Your task to perform on an android device: turn on showing notifications on the lock screen Image 0: 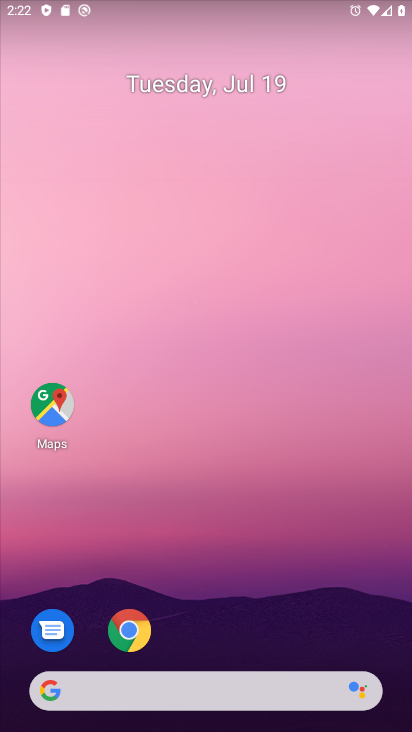
Step 0: drag from (242, 642) to (286, 46)
Your task to perform on an android device: turn on showing notifications on the lock screen Image 1: 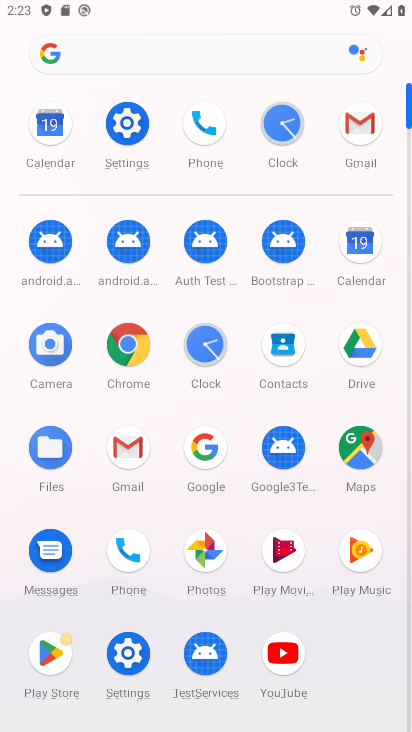
Step 1: click (132, 126)
Your task to perform on an android device: turn on showing notifications on the lock screen Image 2: 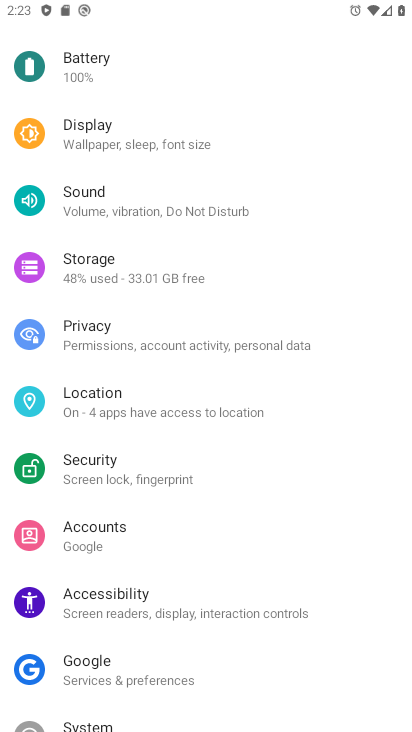
Step 2: drag from (226, 255) to (223, 590)
Your task to perform on an android device: turn on showing notifications on the lock screen Image 3: 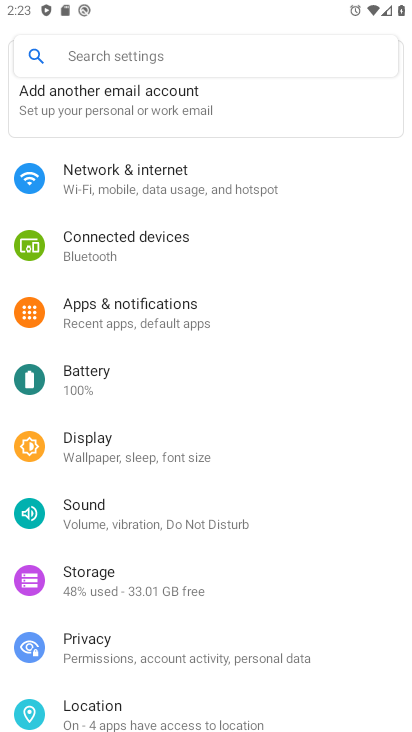
Step 3: click (179, 313)
Your task to perform on an android device: turn on showing notifications on the lock screen Image 4: 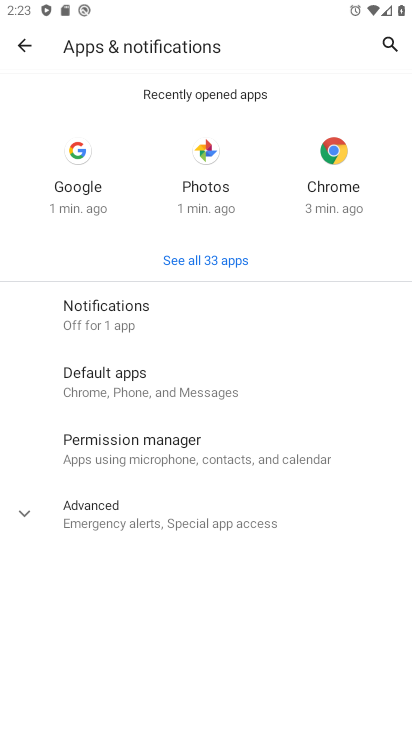
Step 4: click (24, 514)
Your task to perform on an android device: turn on showing notifications on the lock screen Image 5: 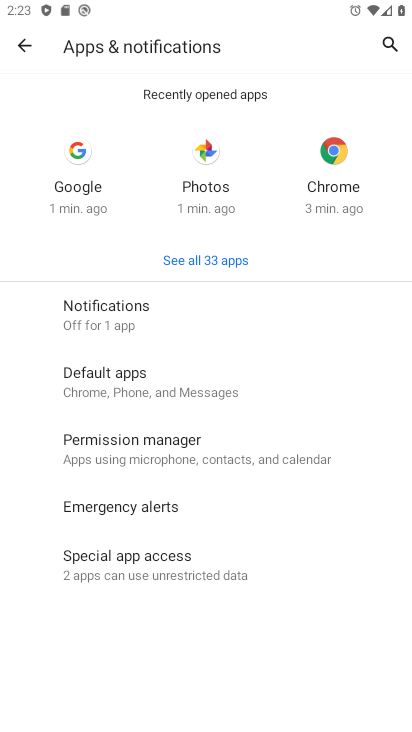
Step 5: click (184, 318)
Your task to perform on an android device: turn on showing notifications on the lock screen Image 6: 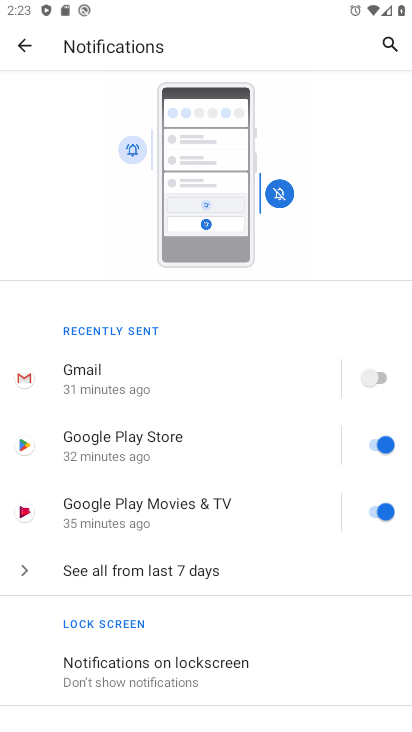
Step 6: click (221, 669)
Your task to perform on an android device: turn on showing notifications on the lock screen Image 7: 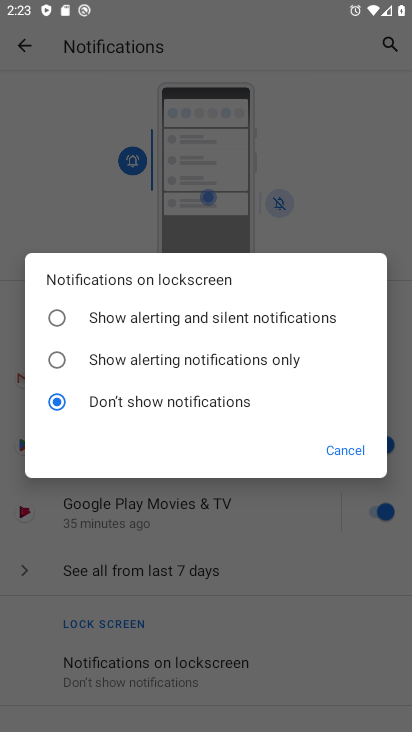
Step 7: click (55, 303)
Your task to perform on an android device: turn on showing notifications on the lock screen Image 8: 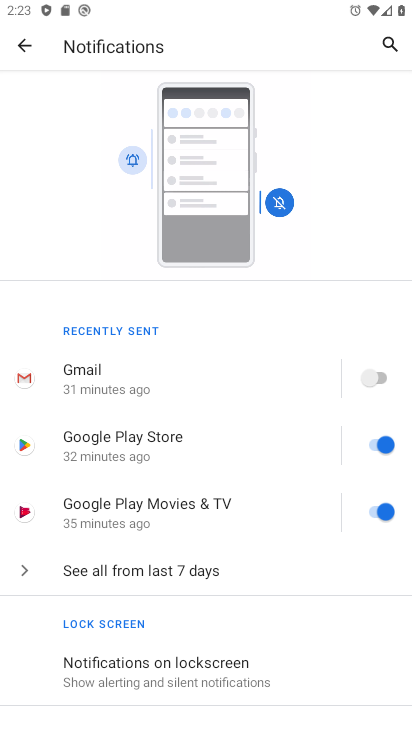
Step 8: task complete